Your task to perform on an android device: Open Youtube and go to the subscriptions tab Image 0: 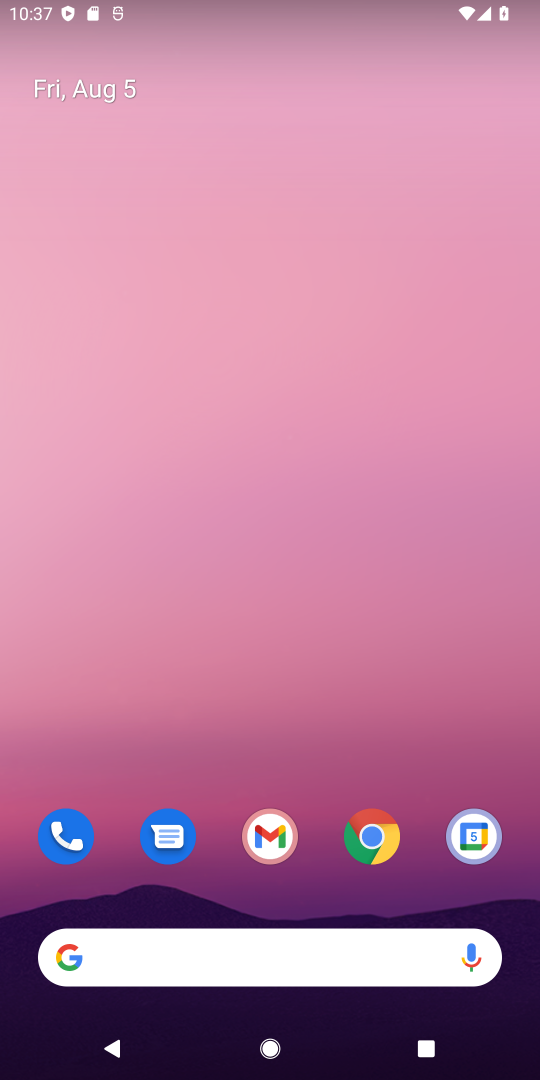
Step 0: drag from (298, 702) to (220, 0)
Your task to perform on an android device: Open Youtube and go to the subscriptions tab Image 1: 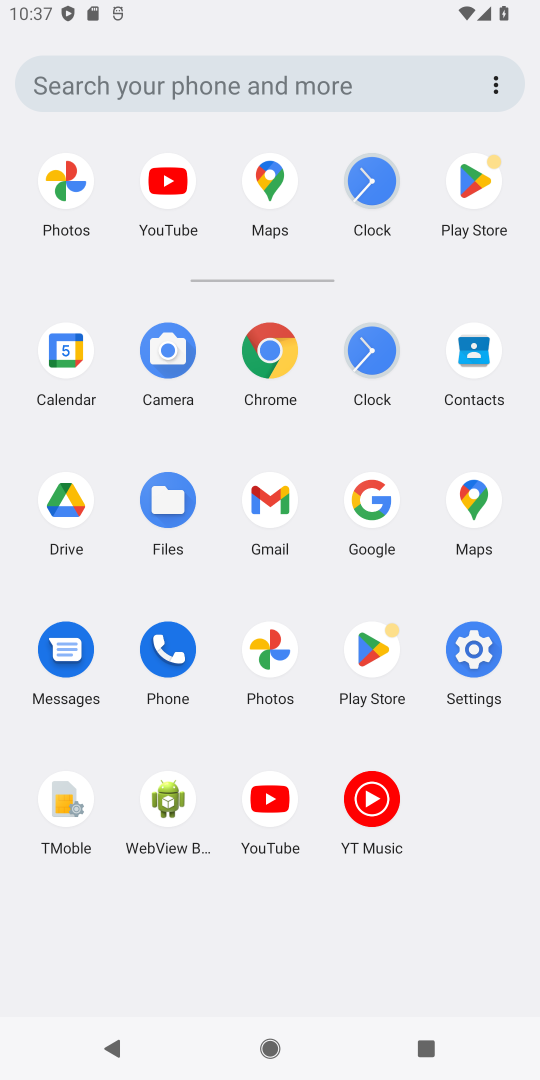
Step 1: click (271, 783)
Your task to perform on an android device: Open Youtube and go to the subscriptions tab Image 2: 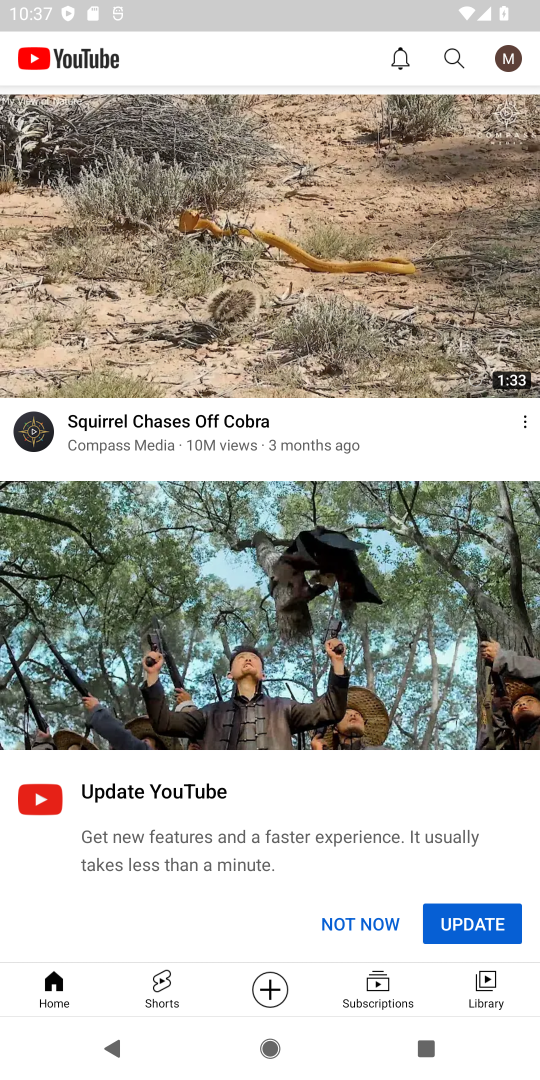
Step 2: click (393, 984)
Your task to perform on an android device: Open Youtube and go to the subscriptions tab Image 3: 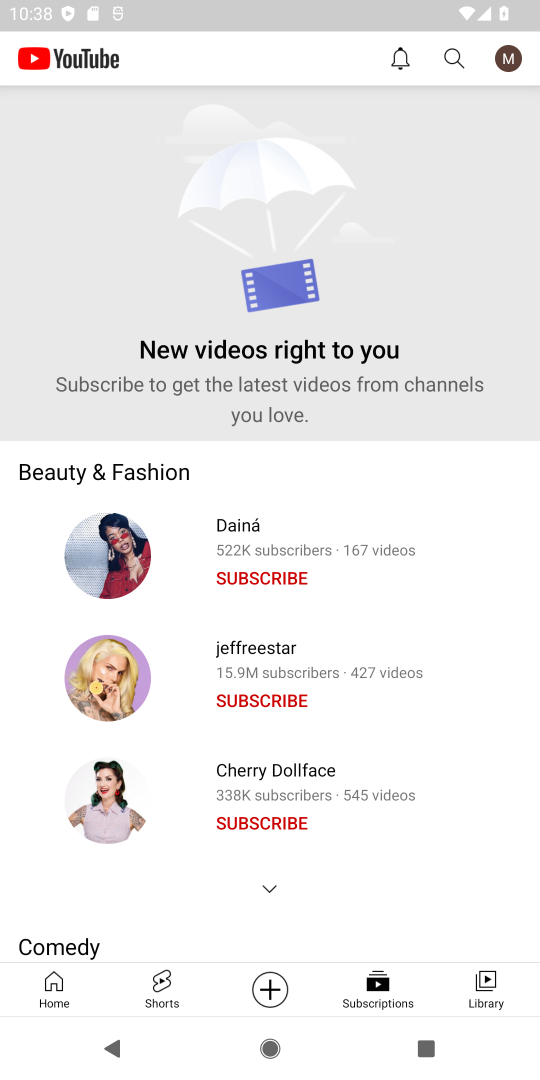
Step 3: task complete